Your task to perform on an android device: Is it going to rain this weekend? Image 0: 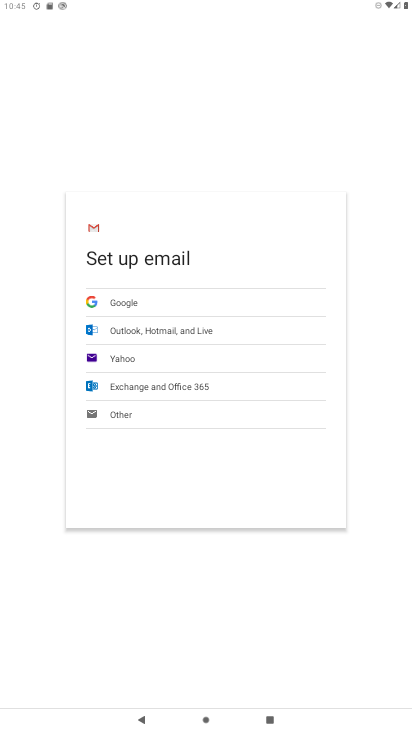
Step 0: press home button
Your task to perform on an android device: Is it going to rain this weekend? Image 1: 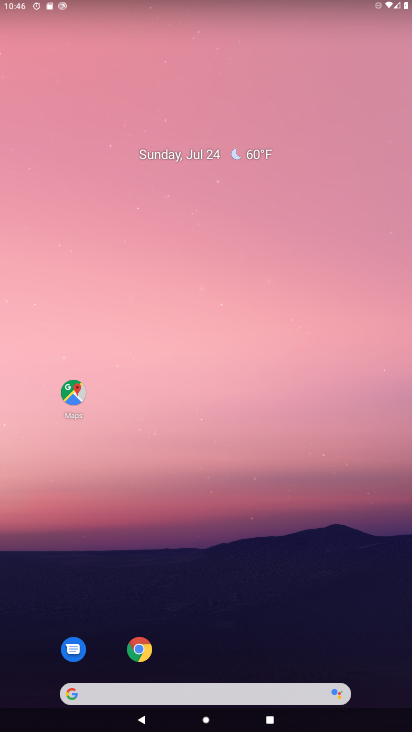
Step 1: drag from (250, 625) to (196, 60)
Your task to perform on an android device: Is it going to rain this weekend? Image 2: 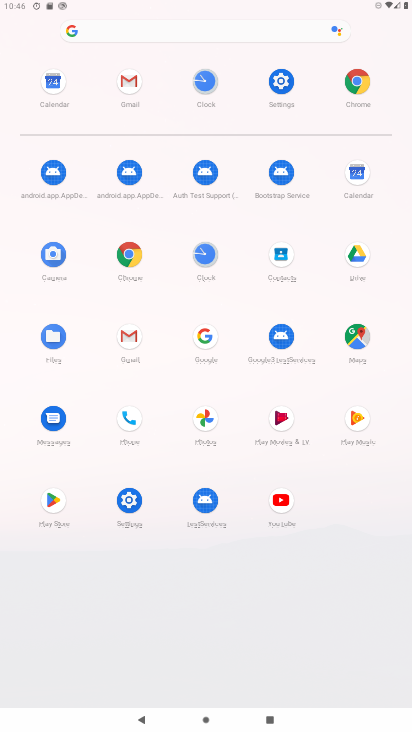
Step 2: click (359, 82)
Your task to perform on an android device: Is it going to rain this weekend? Image 3: 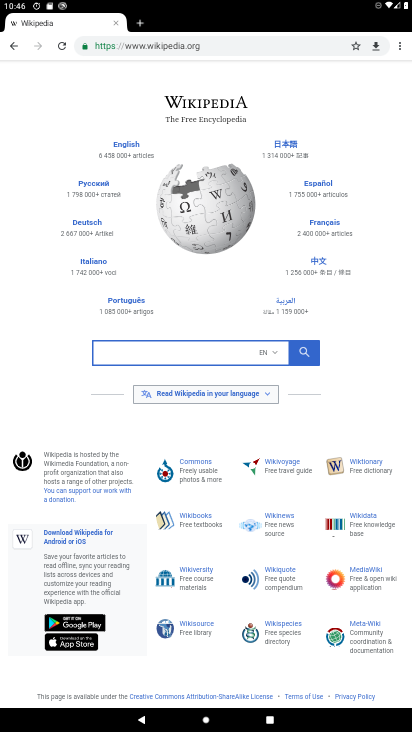
Step 3: click (281, 58)
Your task to perform on an android device: Is it going to rain this weekend? Image 4: 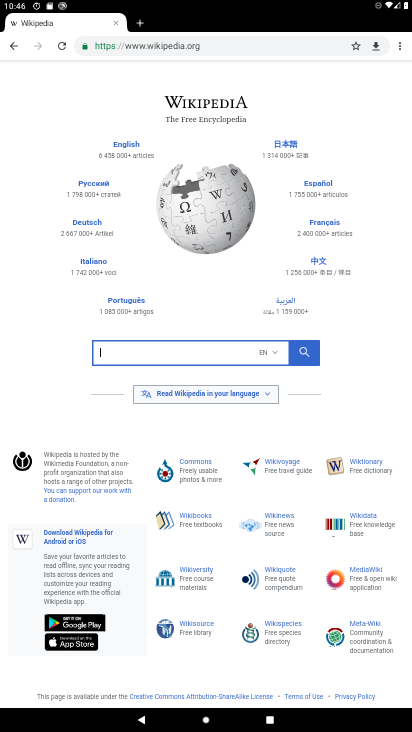
Step 4: click (238, 40)
Your task to perform on an android device: Is it going to rain this weekend? Image 5: 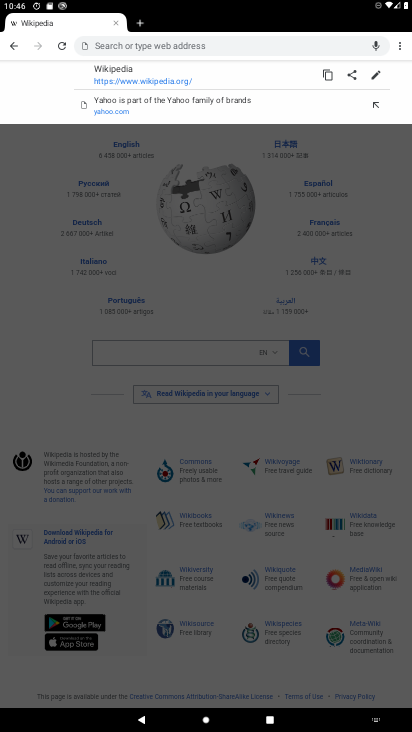
Step 5: type "weather"
Your task to perform on an android device: Is it going to rain this weekend? Image 6: 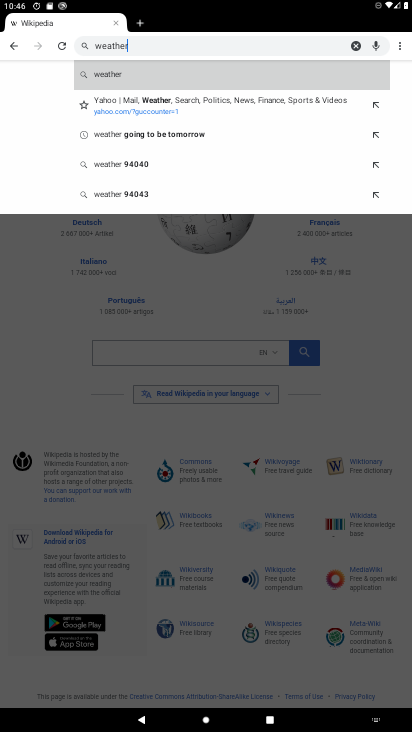
Step 6: click (155, 83)
Your task to perform on an android device: Is it going to rain this weekend? Image 7: 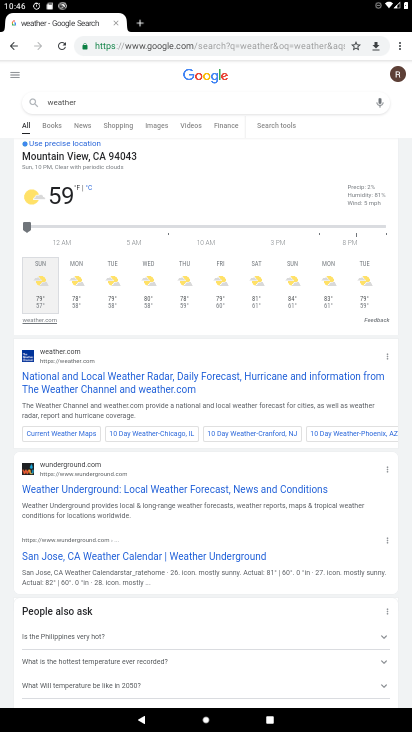
Step 7: task complete